Your task to perform on an android device: Show the shopping cart on walmart. Search for "alienware area 51" on walmart, select the first entry, add it to the cart, then select checkout. Image 0: 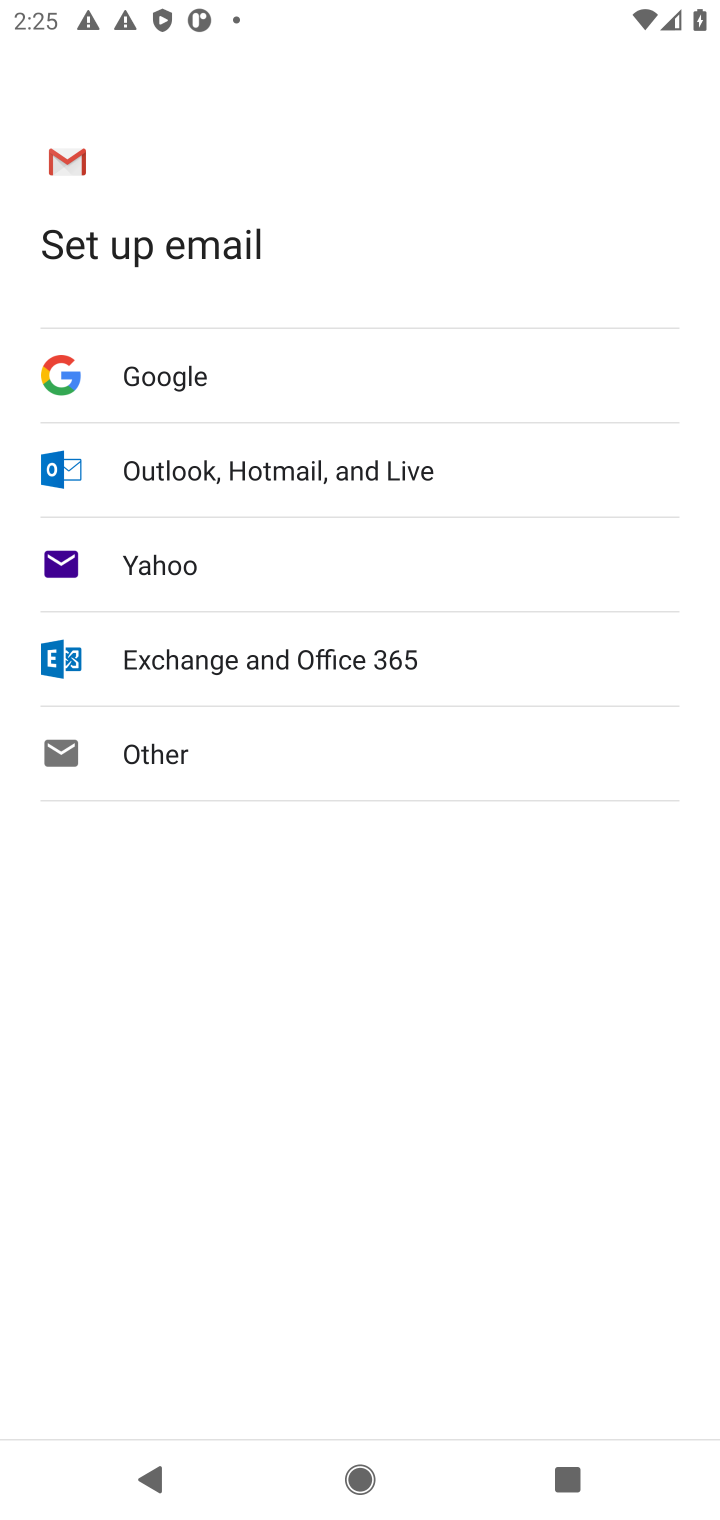
Step 0: task complete